Your task to perform on an android device: check out phone information Image 0: 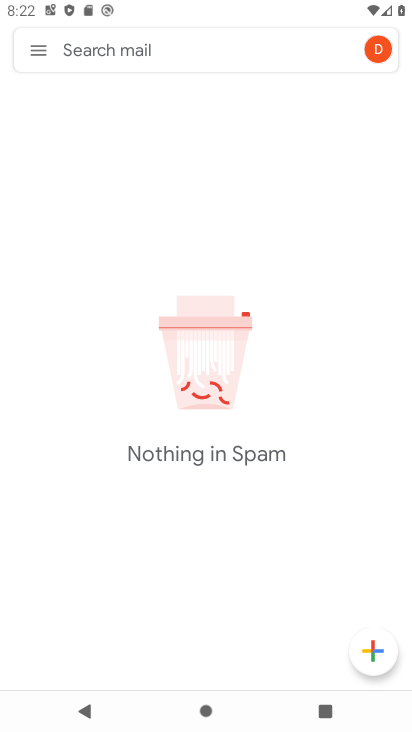
Step 0: press home button
Your task to perform on an android device: check out phone information Image 1: 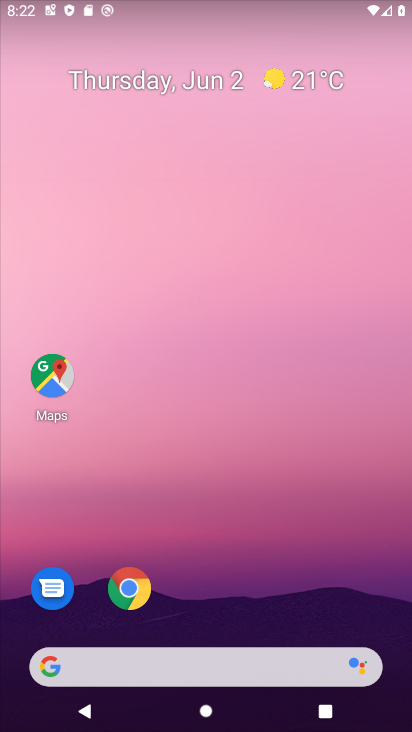
Step 1: drag from (233, 654) to (217, 202)
Your task to perform on an android device: check out phone information Image 2: 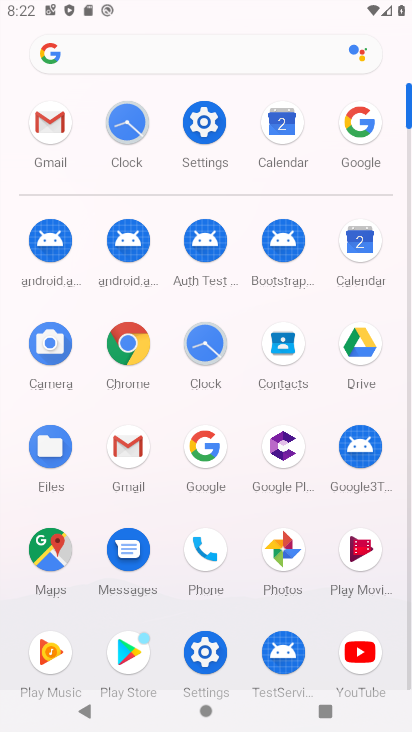
Step 2: click (217, 202)
Your task to perform on an android device: check out phone information Image 3: 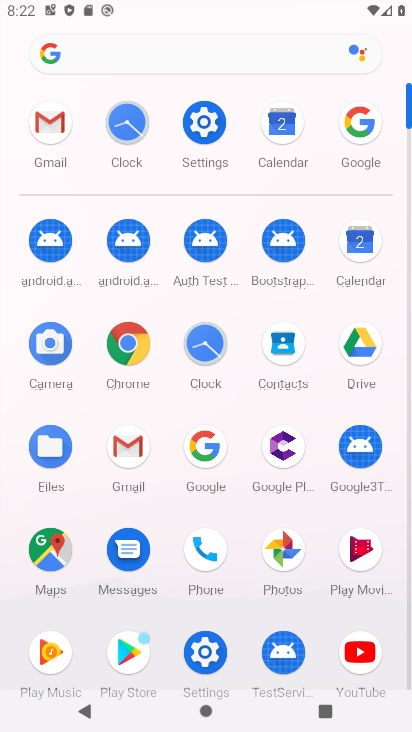
Step 3: click (208, 144)
Your task to perform on an android device: check out phone information Image 4: 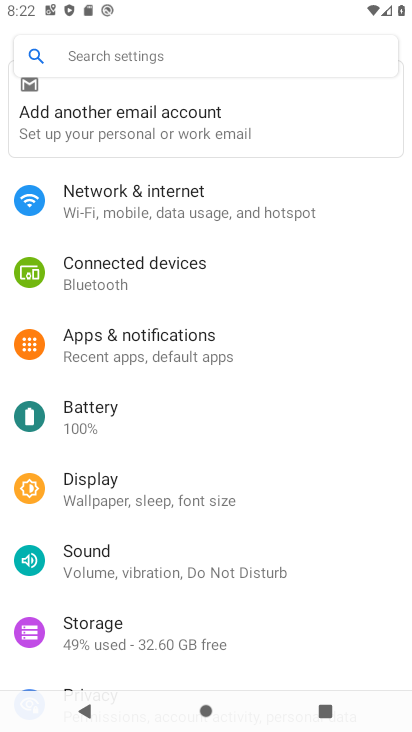
Step 4: drag from (198, 614) to (202, 23)
Your task to perform on an android device: check out phone information Image 5: 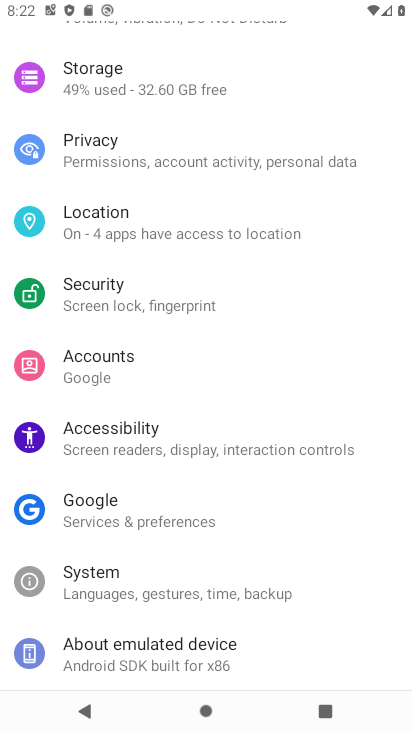
Step 5: drag from (210, 595) to (199, 48)
Your task to perform on an android device: check out phone information Image 6: 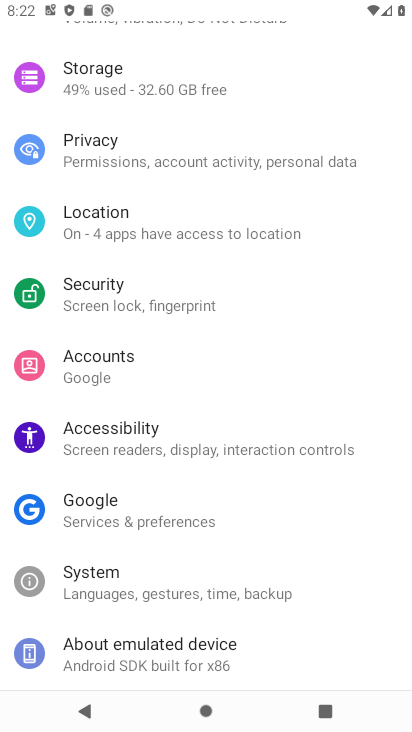
Step 6: click (152, 648)
Your task to perform on an android device: check out phone information Image 7: 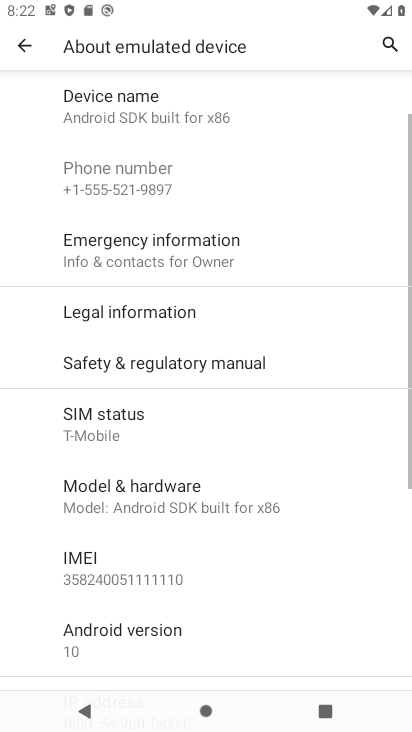
Step 7: task complete